Your task to perform on an android device: Go to Wikipedia Image 0: 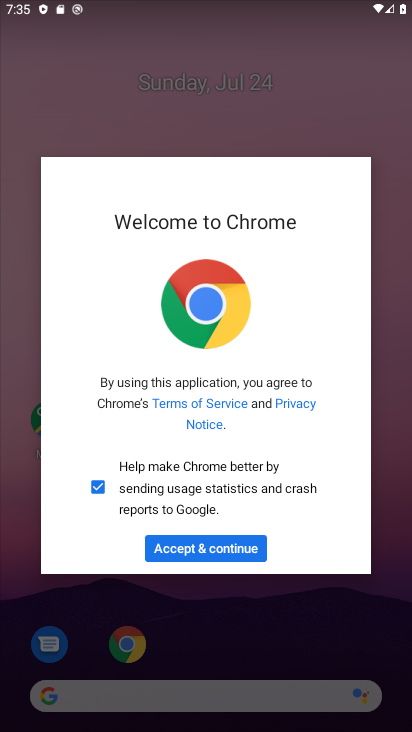
Step 0: press home button
Your task to perform on an android device: Go to Wikipedia Image 1: 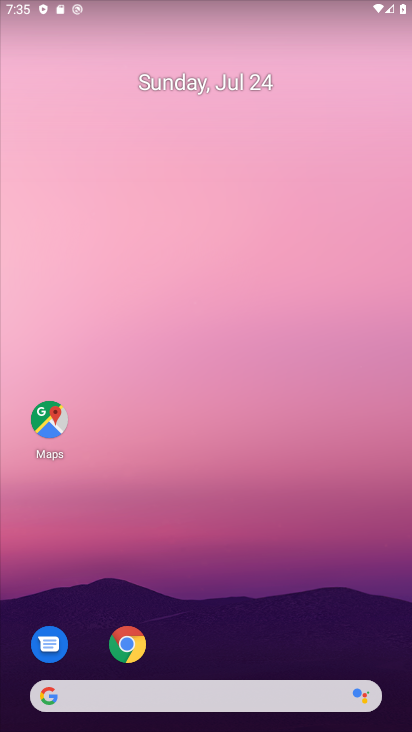
Step 1: click (130, 643)
Your task to perform on an android device: Go to Wikipedia Image 2: 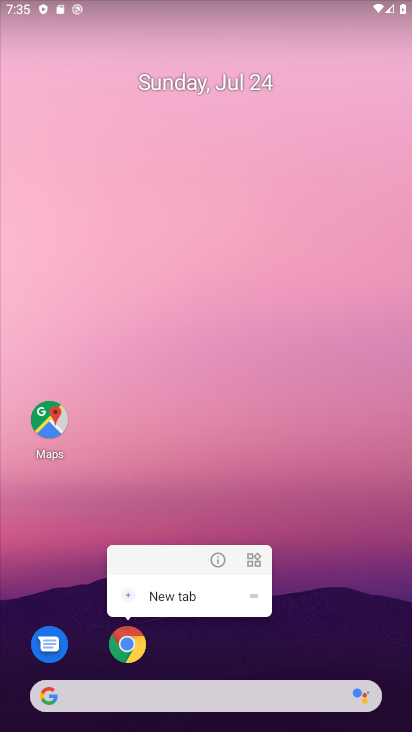
Step 2: click (129, 642)
Your task to perform on an android device: Go to Wikipedia Image 3: 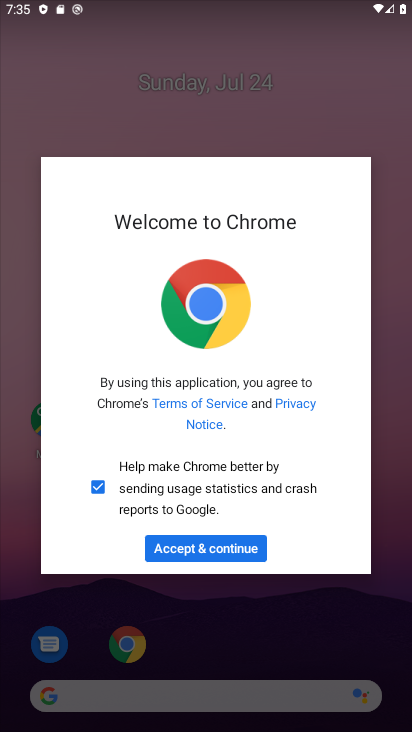
Step 3: click (257, 552)
Your task to perform on an android device: Go to Wikipedia Image 4: 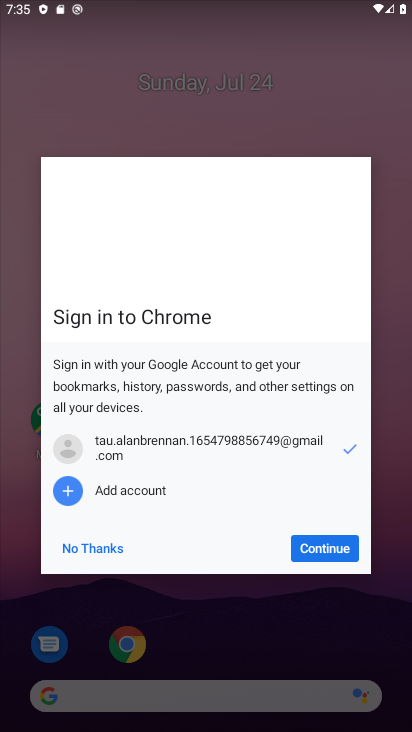
Step 4: click (308, 547)
Your task to perform on an android device: Go to Wikipedia Image 5: 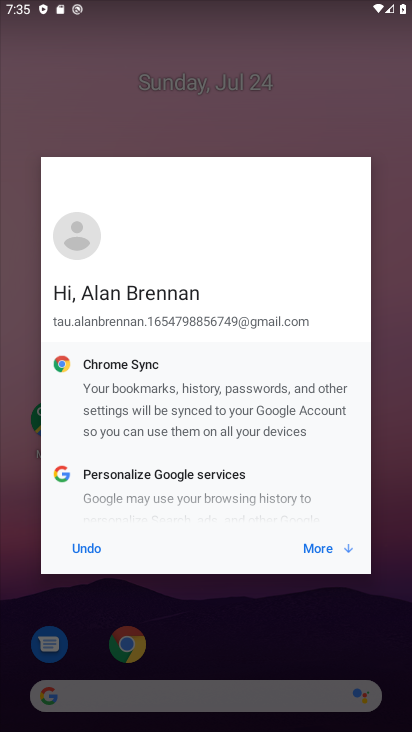
Step 5: click (304, 548)
Your task to perform on an android device: Go to Wikipedia Image 6: 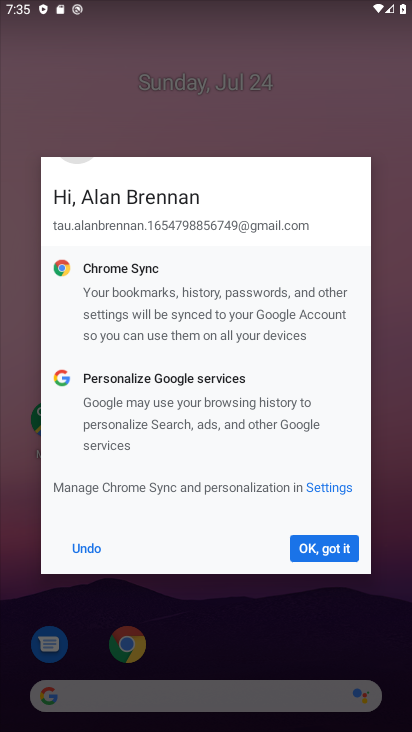
Step 6: click (313, 549)
Your task to perform on an android device: Go to Wikipedia Image 7: 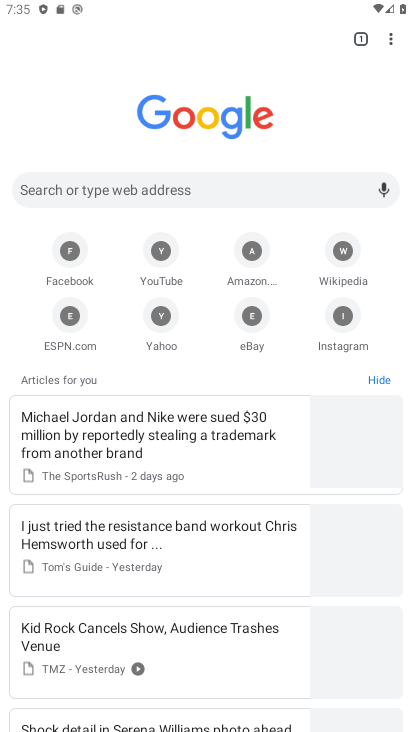
Step 7: click (345, 258)
Your task to perform on an android device: Go to Wikipedia Image 8: 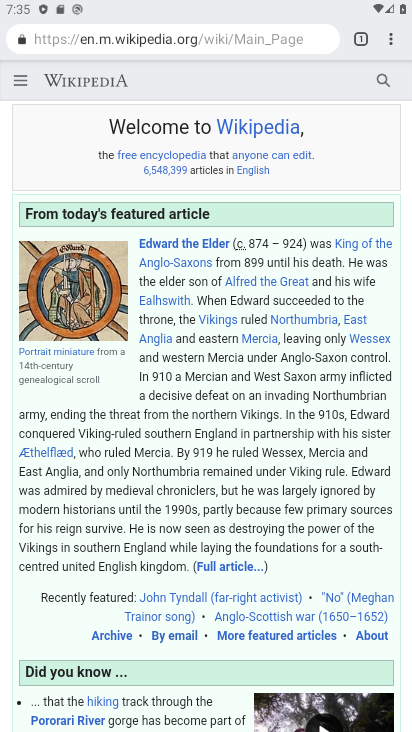
Step 8: task complete